Your task to perform on an android device: Open maps Image 0: 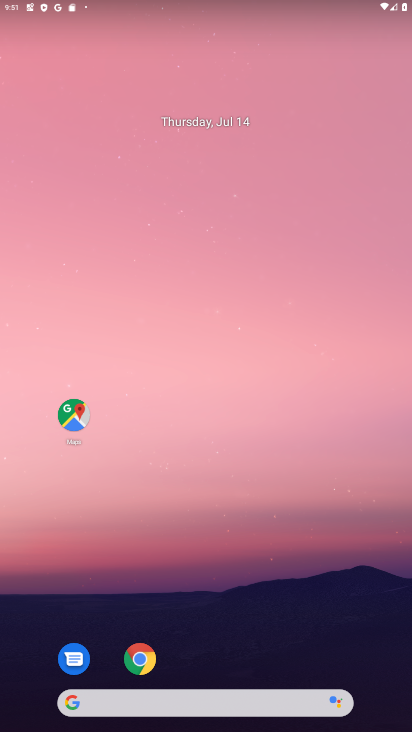
Step 0: drag from (308, 625) to (321, 179)
Your task to perform on an android device: Open maps Image 1: 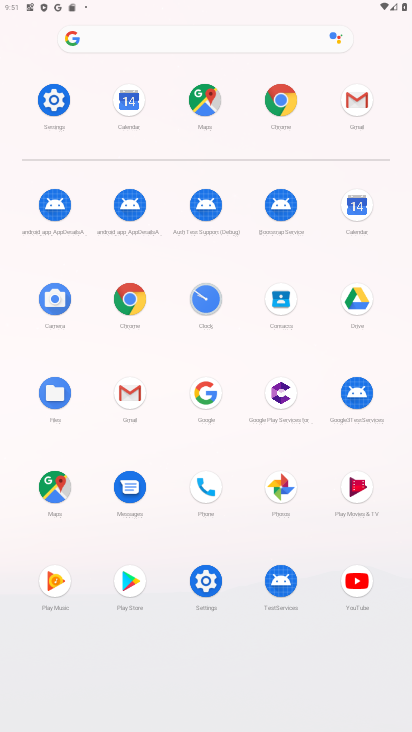
Step 1: click (198, 96)
Your task to perform on an android device: Open maps Image 2: 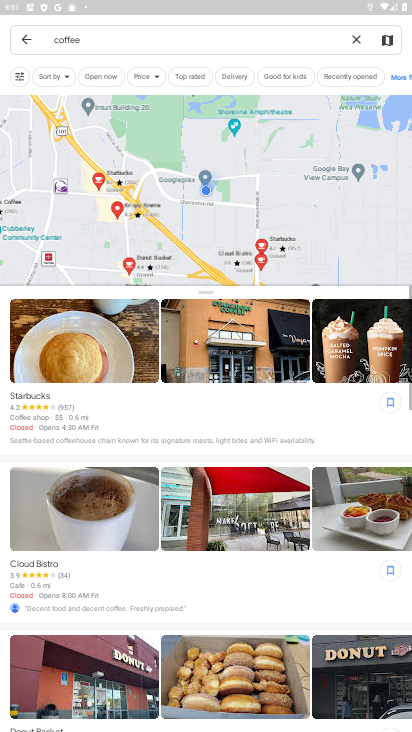
Step 2: task complete